Your task to perform on an android device: turn off airplane mode Image 0: 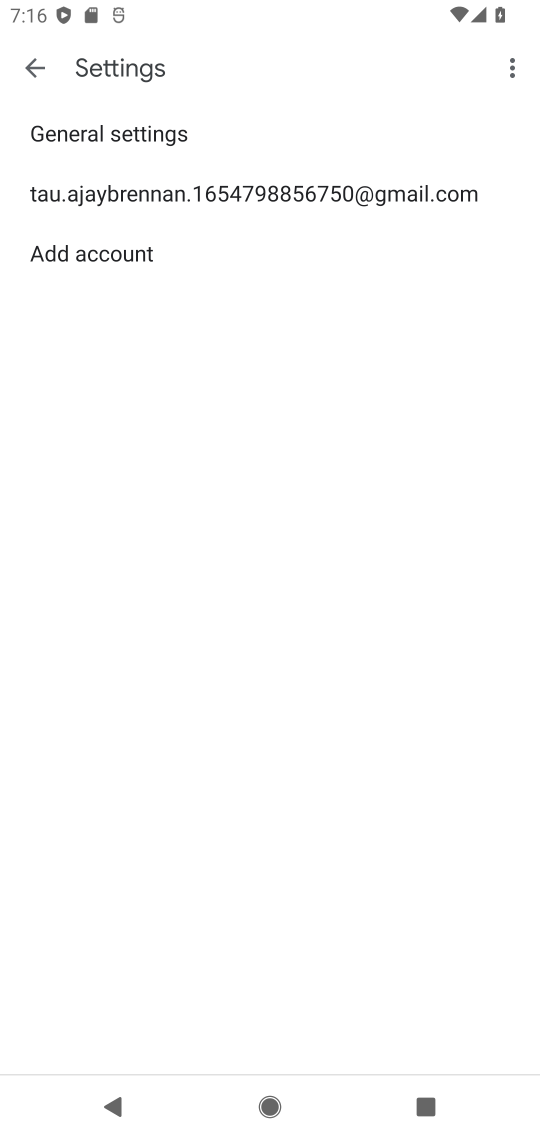
Step 0: press home button
Your task to perform on an android device: turn off airplane mode Image 1: 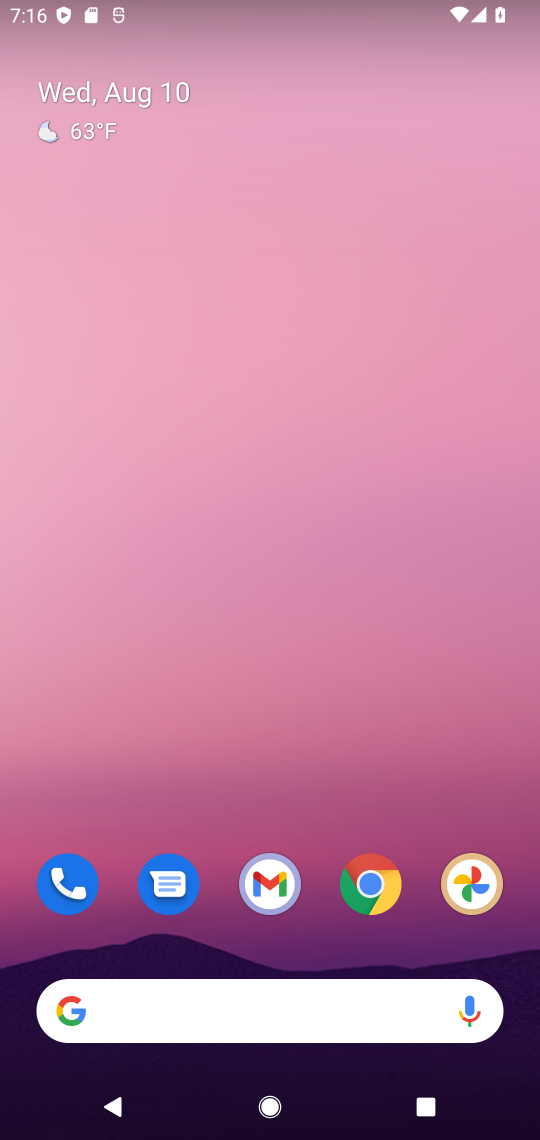
Step 1: drag from (312, 947) to (281, 174)
Your task to perform on an android device: turn off airplane mode Image 2: 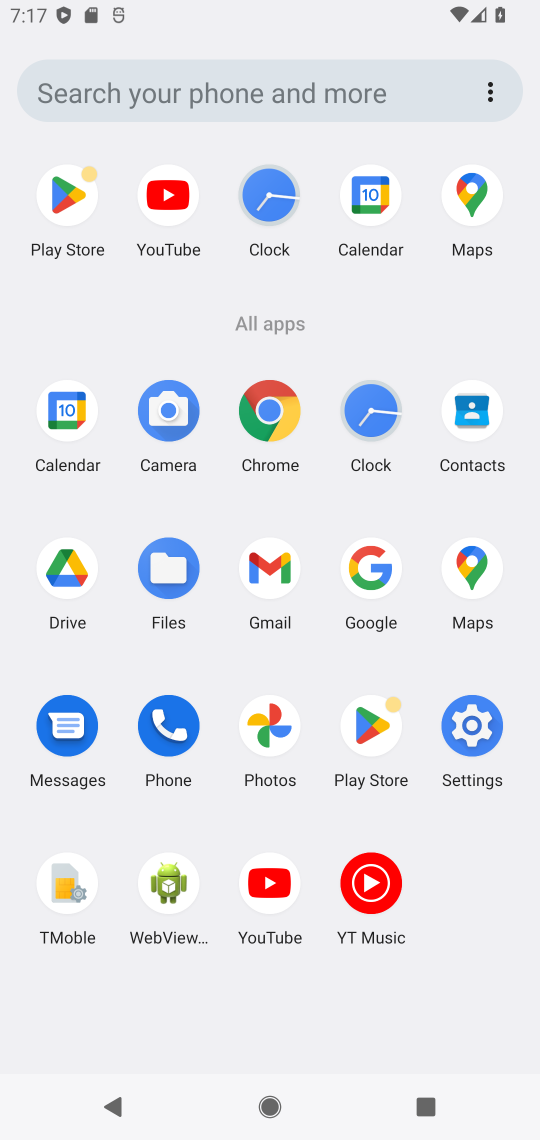
Step 2: click (471, 729)
Your task to perform on an android device: turn off airplane mode Image 3: 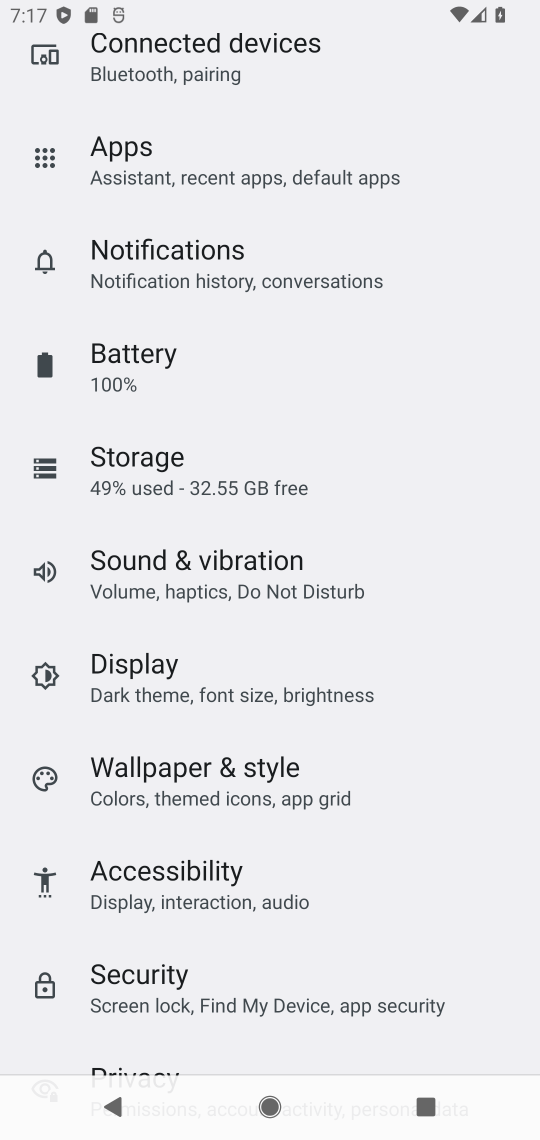
Step 3: drag from (289, 388) to (190, 979)
Your task to perform on an android device: turn off airplane mode Image 4: 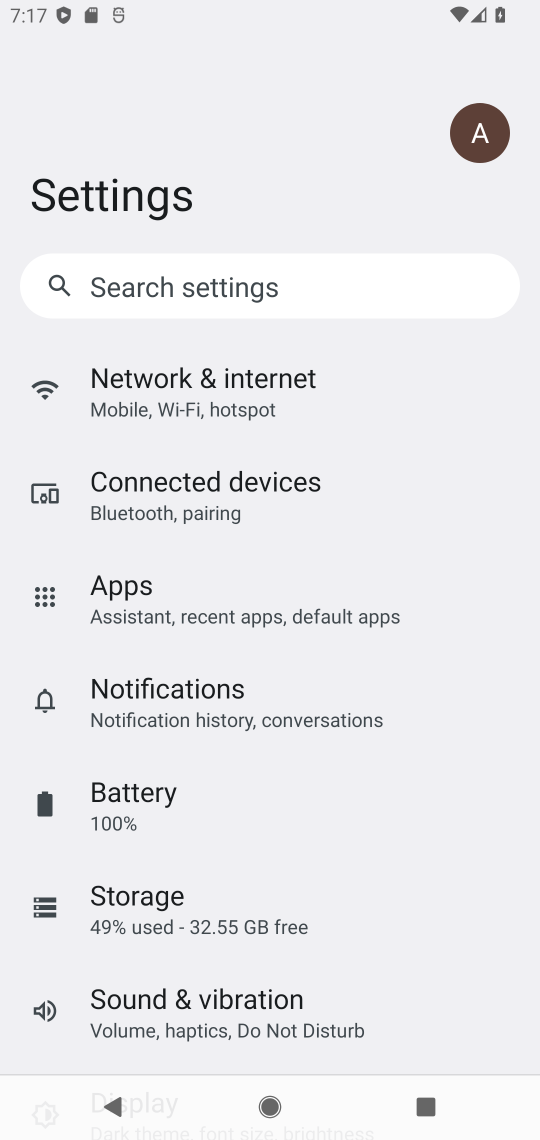
Step 4: drag from (347, 808) to (347, 434)
Your task to perform on an android device: turn off airplane mode Image 5: 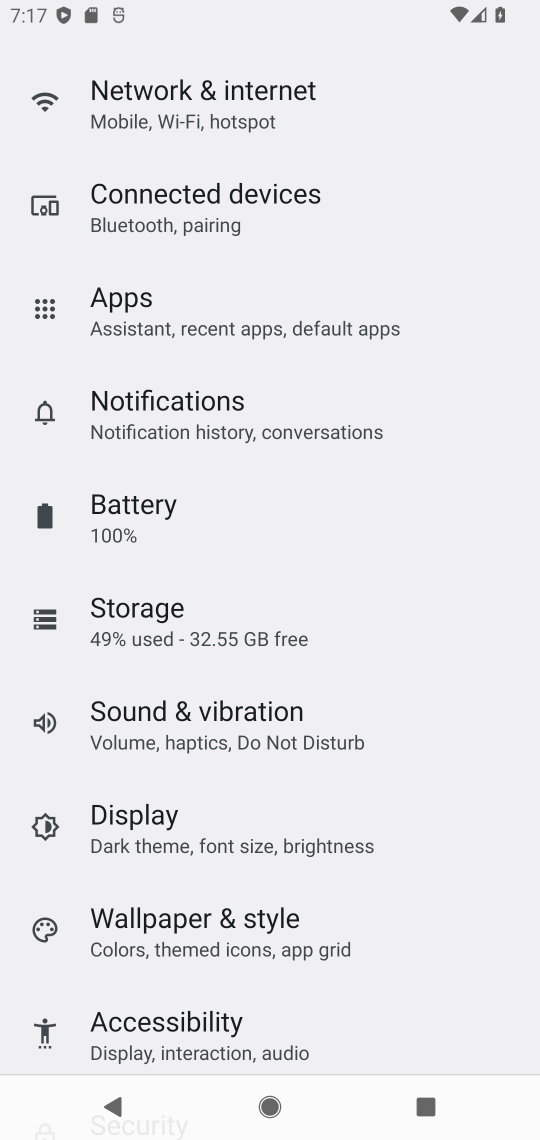
Step 5: click (192, 80)
Your task to perform on an android device: turn off airplane mode Image 6: 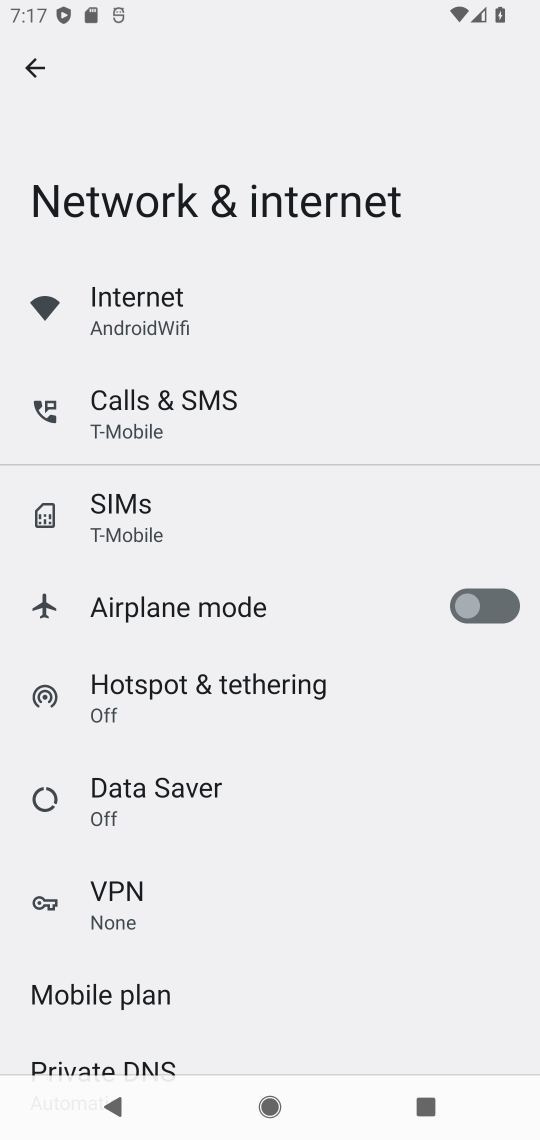
Step 6: task complete